Your task to perform on an android device: Open Wikipedia Image 0: 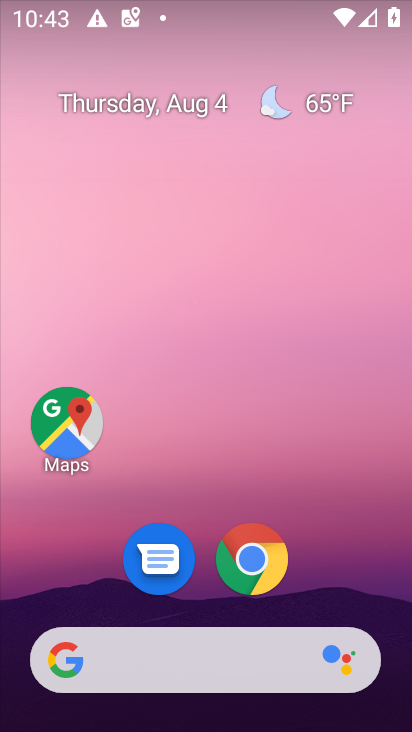
Step 0: click (243, 582)
Your task to perform on an android device: Open Wikipedia Image 1: 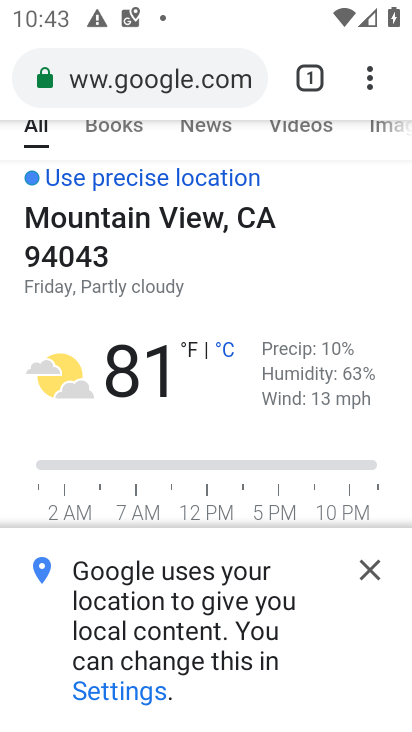
Step 1: click (144, 87)
Your task to perform on an android device: Open Wikipedia Image 2: 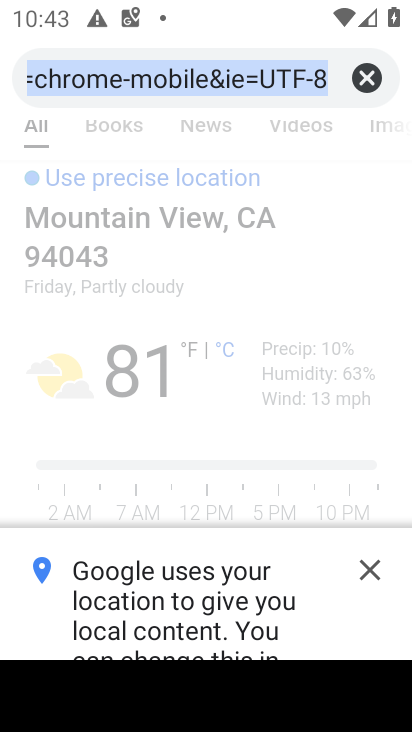
Step 2: type "wikipedia"
Your task to perform on an android device: Open Wikipedia Image 3: 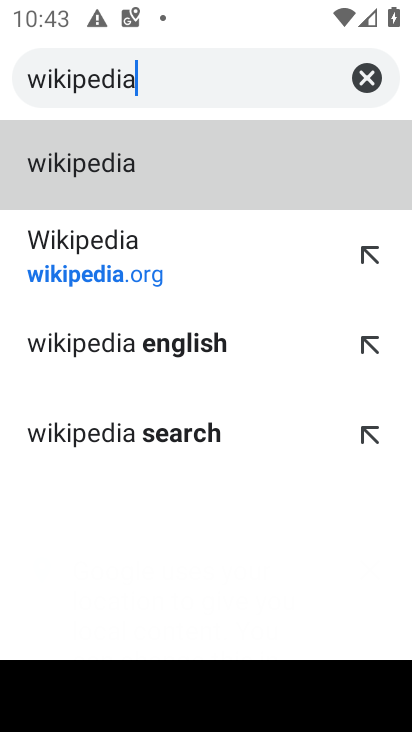
Step 3: click (302, 157)
Your task to perform on an android device: Open Wikipedia Image 4: 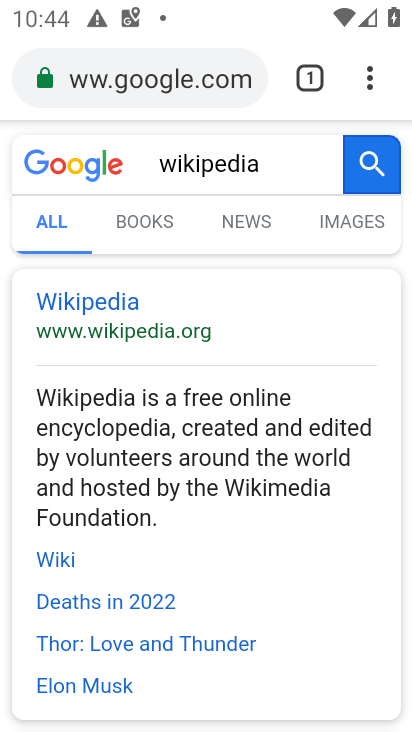
Step 4: task complete